Your task to perform on an android device: Go to location settings Image 0: 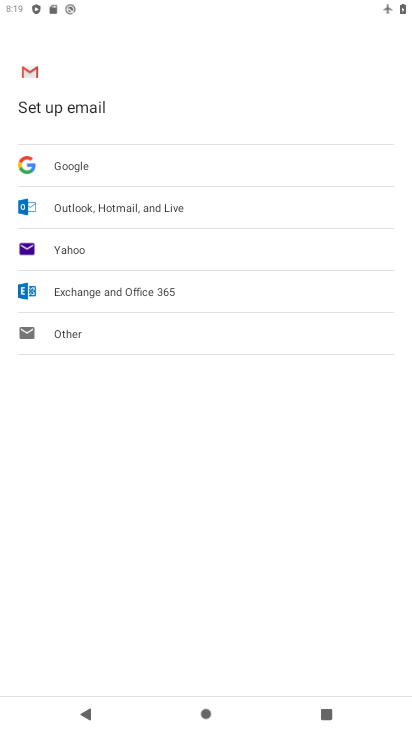
Step 0: press home button
Your task to perform on an android device: Go to location settings Image 1: 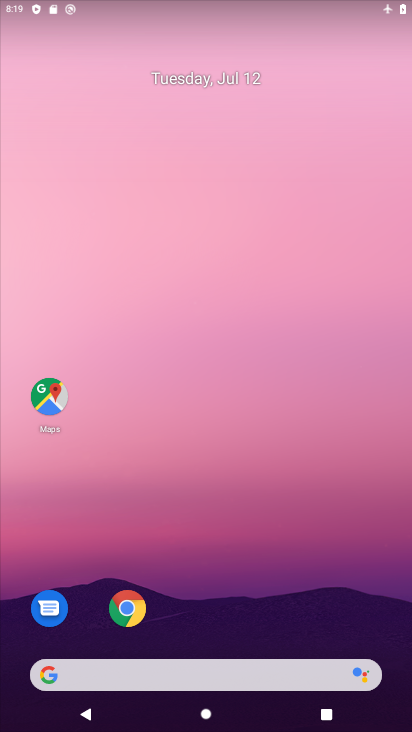
Step 1: drag from (254, 653) to (268, 36)
Your task to perform on an android device: Go to location settings Image 2: 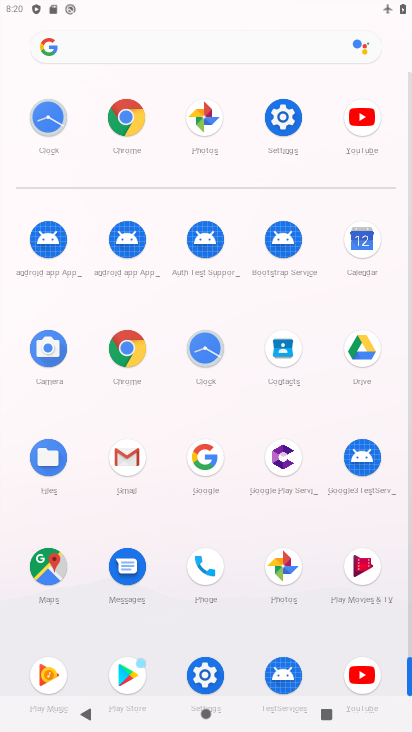
Step 2: click (283, 122)
Your task to perform on an android device: Go to location settings Image 3: 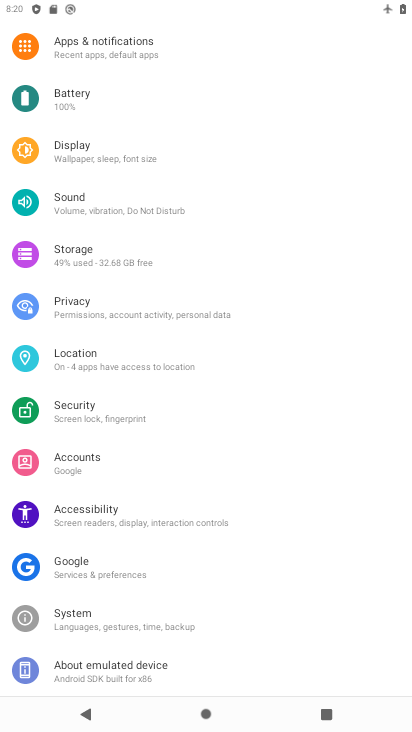
Step 3: click (49, 348)
Your task to perform on an android device: Go to location settings Image 4: 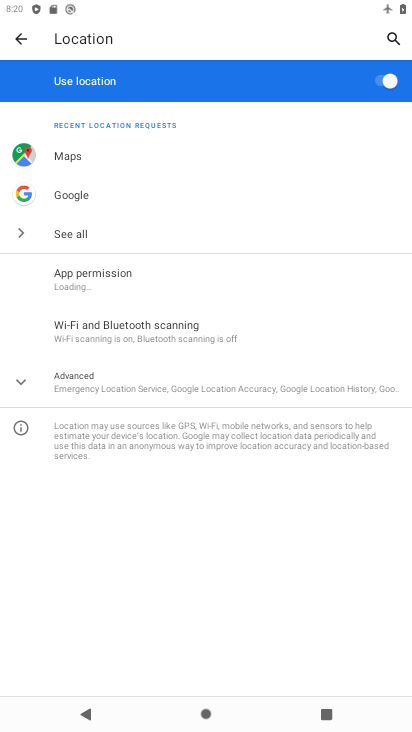
Step 4: click (81, 396)
Your task to perform on an android device: Go to location settings Image 5: 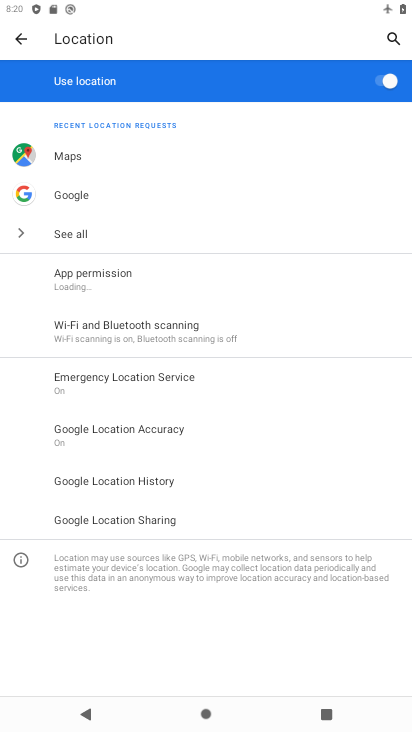
Step 5: task complete